Your task to perform on an android device: Open calendar and show me the fourth week of next month Image 0: 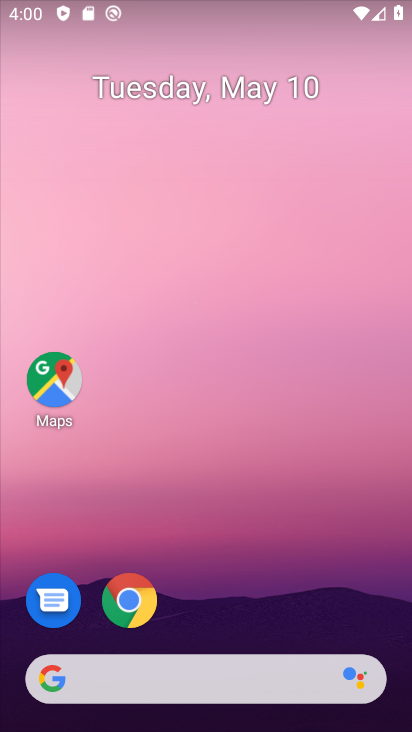
Step 0: drag from (256, 610) to (312, 129)
Your task to perform on an android device: Open calendar and show me the fourth week of next month Image 1: 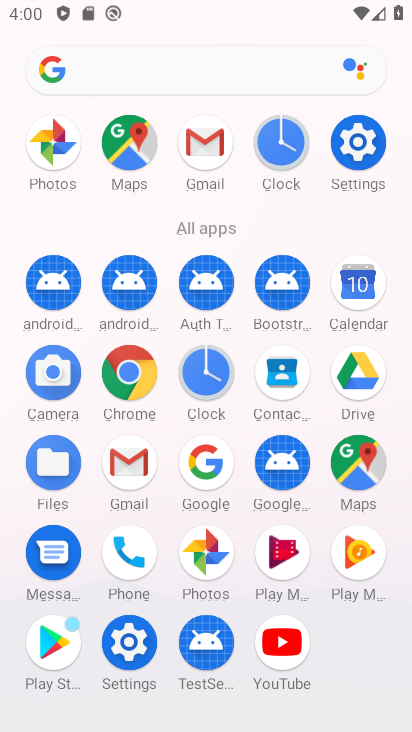
Step 1: click (353, 304)
Your task to perform on an android device: Open calendar and show me the fourth week of next month Image 2: 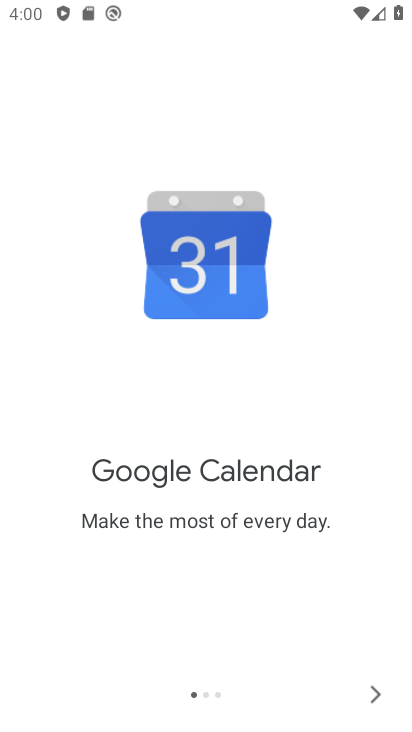
Step 2: click (356, 707)
Your task to perform on an android device: Open calendar and show me the fourth week of next month Image 3: 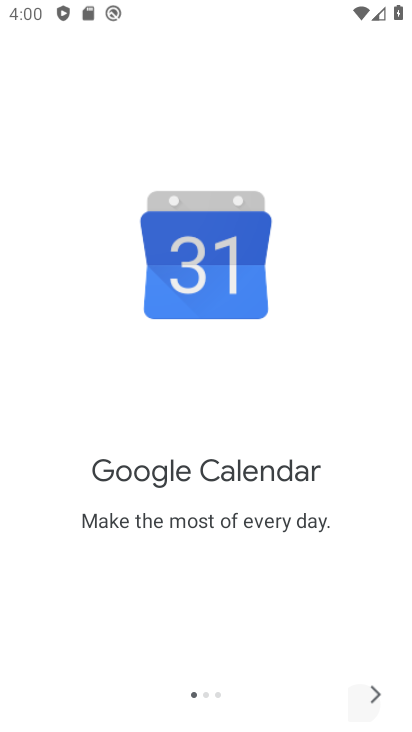
Step 3: click (356, 707)
Your task to perform on an android device: Open calendar and show me the fourth week of next month Image 4: 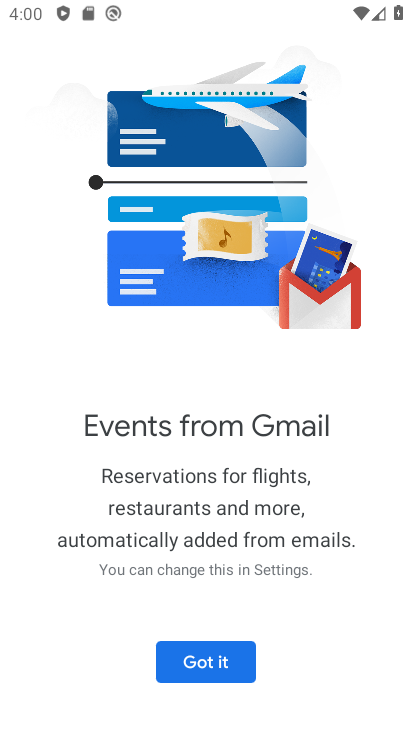
Step 4: click (177, 662)
Your task to perform on an android device: Open calendar and show me the fourth week of next month Image 5: 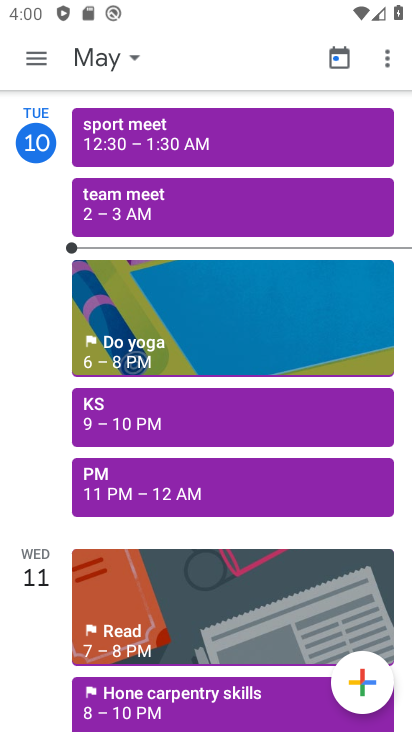
Step 5: click (88, 58)
Your task to perform on an android device: Open calendar and show me the fourth week of next month Image 6: 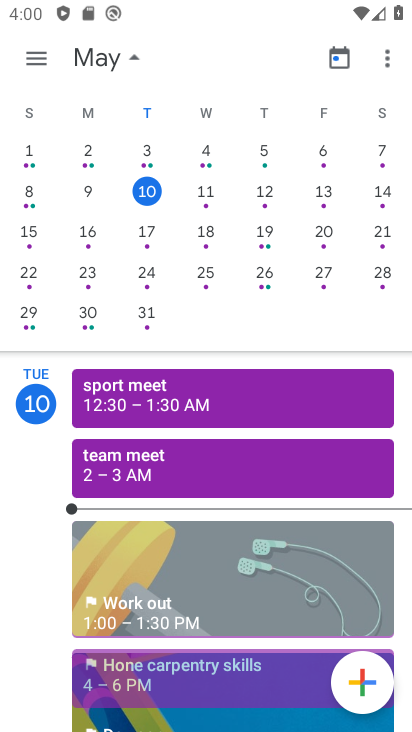
Step 6: drag from (322, 269) to (2, 154)
Your task to perform on an android device: Open calendar and show me the fourth week of next month Image 7: 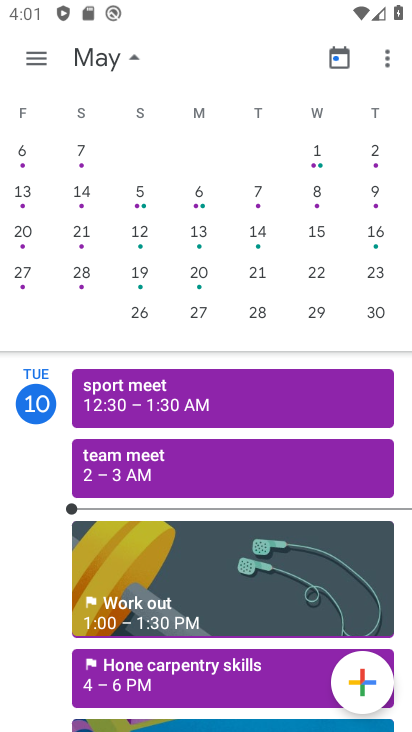
Step 7: drag from (321, 248) to (6, 240)
Your task to perform on an android device: Open calendar and show me the fourth week of next month Image 8: 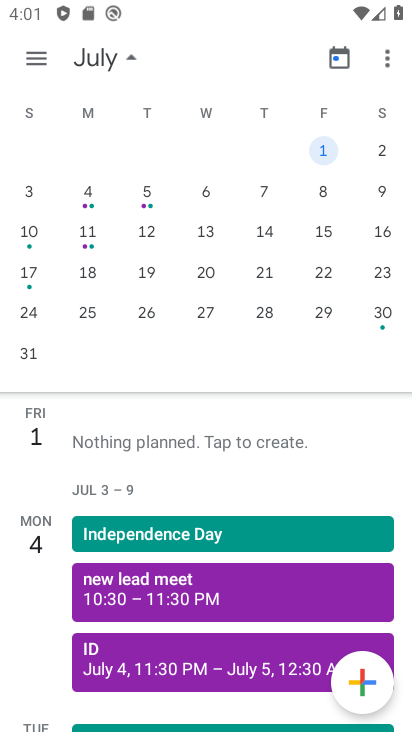
Step 8: drag from (91, 229) to (330, 234)
Your task to perform on an android device: Open calendar and show me the fourth week of next month Image 9: 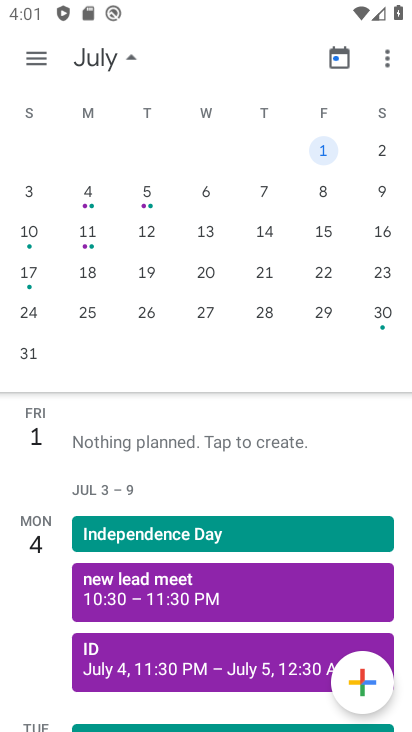
Step 9: click (34, 277)
Your task to perform on an android device: Open calendar and show me the fourth week of next month Image 10: 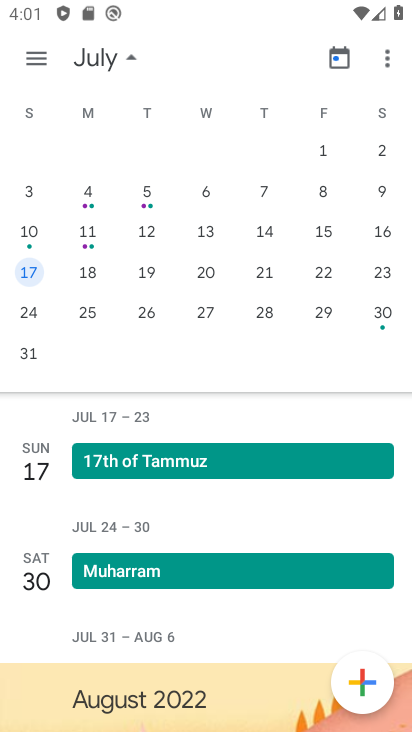
Step 10: click (91, 281)
Your task to perform on an android device: Open calendar and show me the fourth week of next month Image 11: 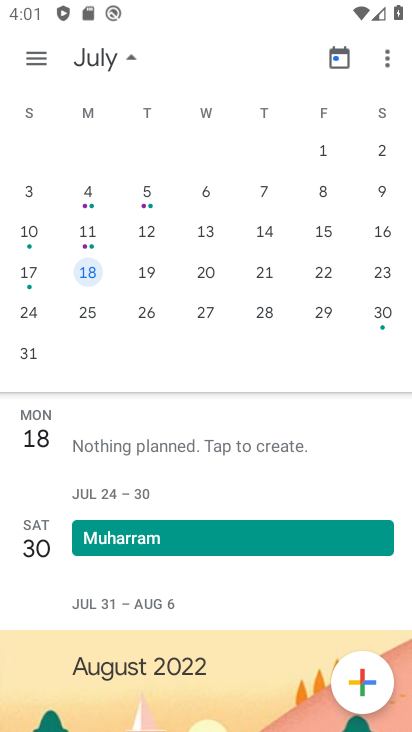
Step 11: click (146, 279)
Your task to perform on an android device: Open calendar and show me the fourth week of next month Image 12: 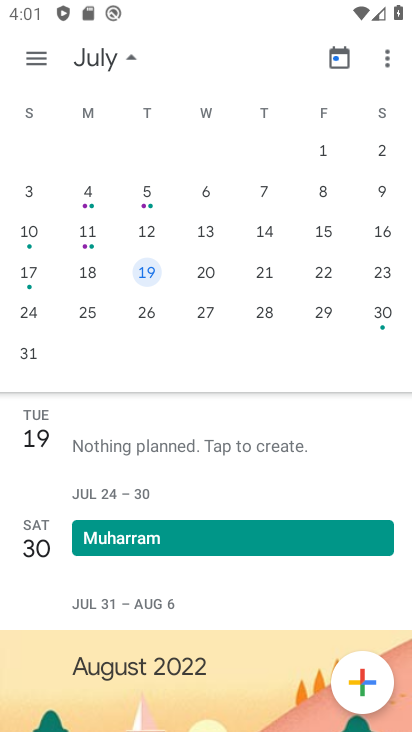
Step 12: click (200, 275)
Your task to perform on an android device: Open calendar and show me the fourth week of next month Image 13: 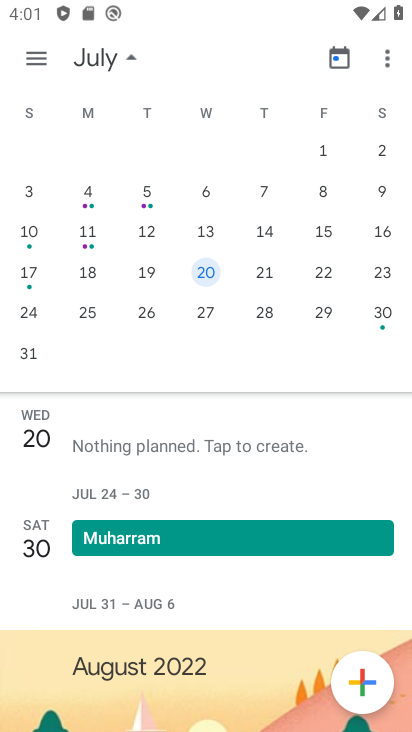
Step 13: click (253, 271)
Your task to perform on an android device: Open calendar and show me the fourth week of next month Image 14: 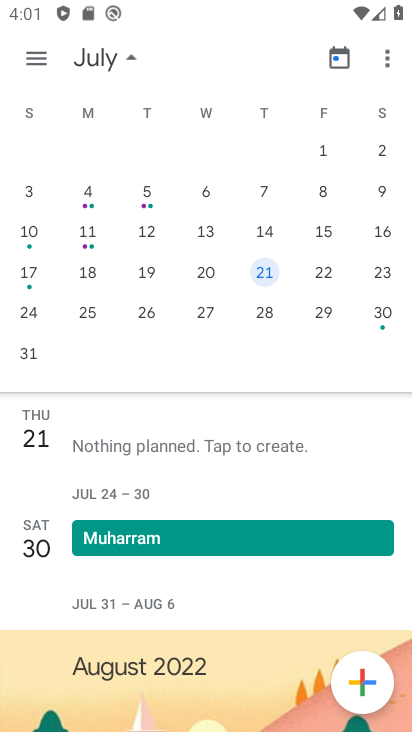
Step 14: click (321, 280)
Your task to perform on an android device: Open calendar and show me the fourth week of next month Image 15: 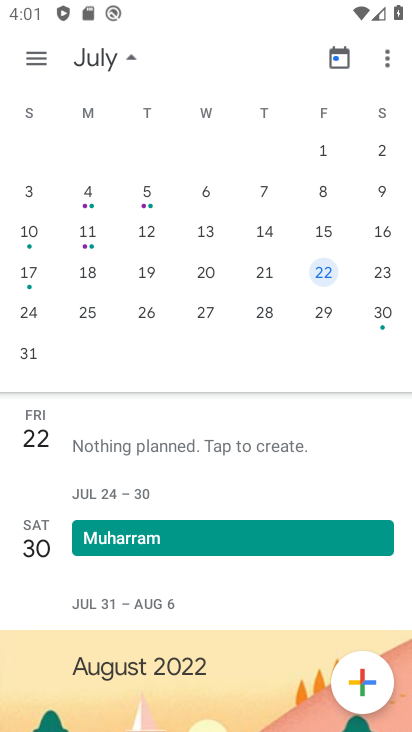
Step 15: click (389, 280)
Your task to perform on an android device: Open calendar and show me the fourth week of next month Image 16: 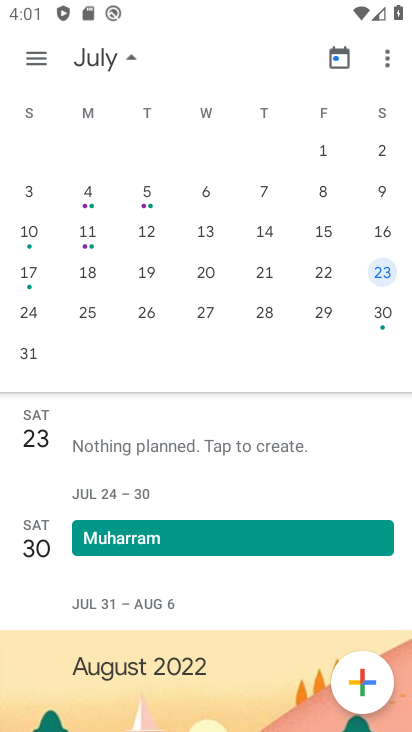
Step 16: task complete